Your task to perform on an android device: What's on my calendar today? Image 0: 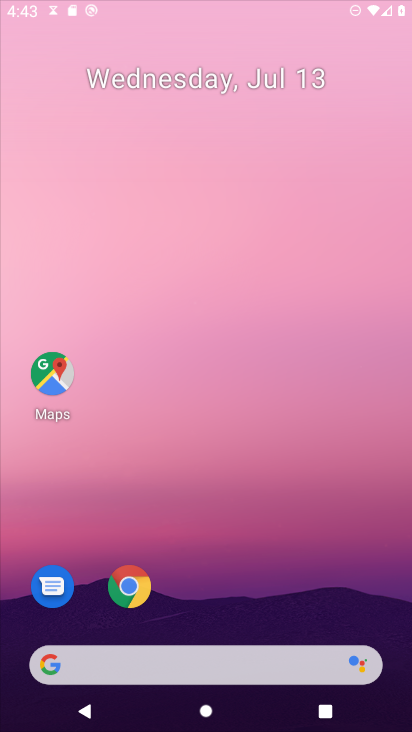
Step 0: drag from (254, 676) to (152, 68)
Your task to perform on an android device: What's on my calendar today? Image 1: 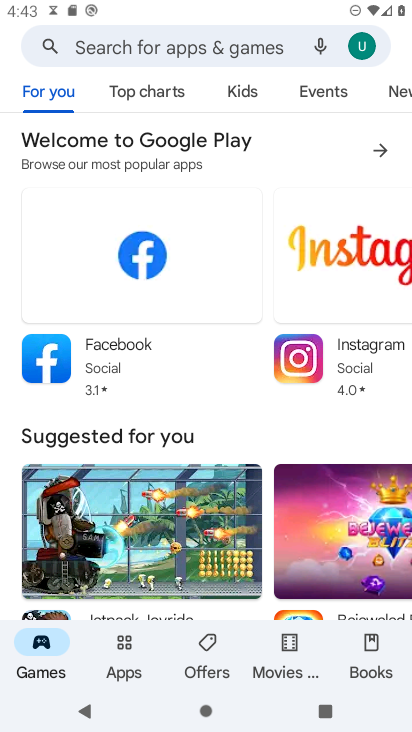
Step 1: press back button
Your task to perform on an android device: What's on my calendar today? Image 2: 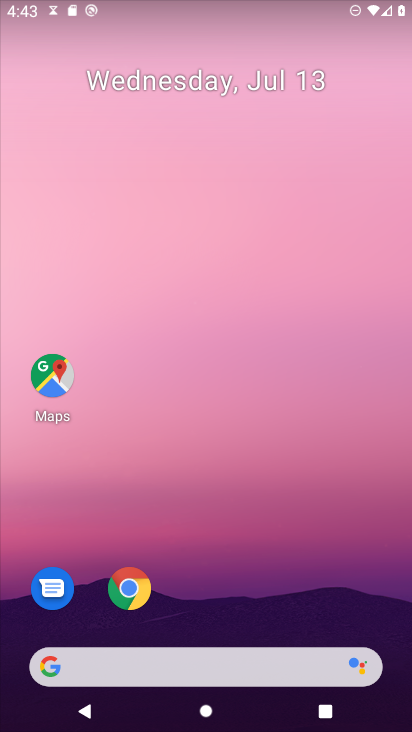
Step 2: drag from (275, 623) to (173, 114)
Your task to perform on an android device: What's on my calendar today? Image 3: 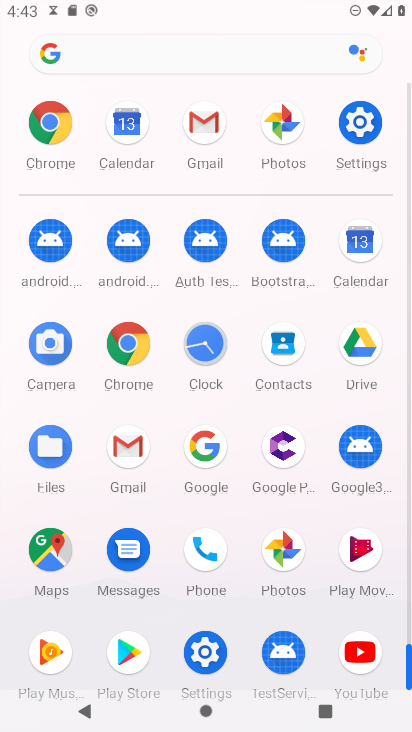
Step 3: click (362, 240)
Your task to perform on an android device: What's on my calendar today? Image 4: 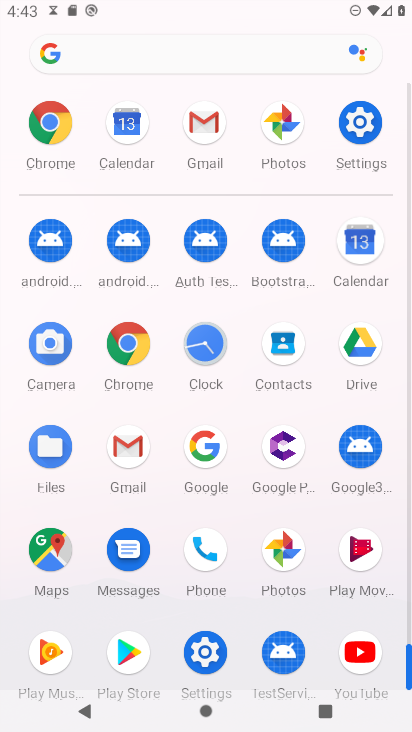
Step 4: click (362, 239)
Your task to perform on an android device: What's on my calendar today? Image 5: 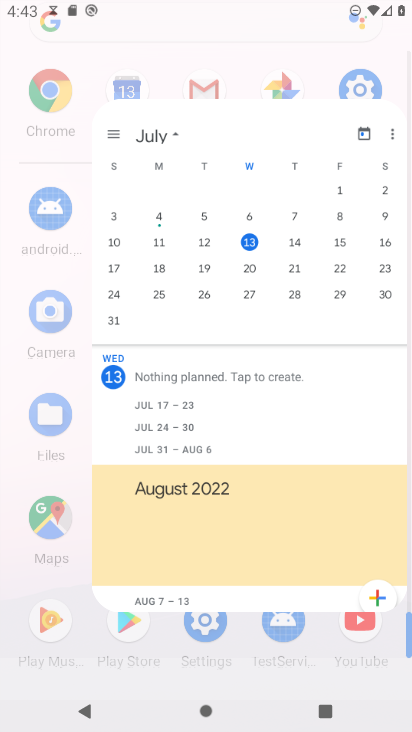
Step 5: click (362, 239)
Your task to perform on an android device: What's on my calendar today? Image 6: 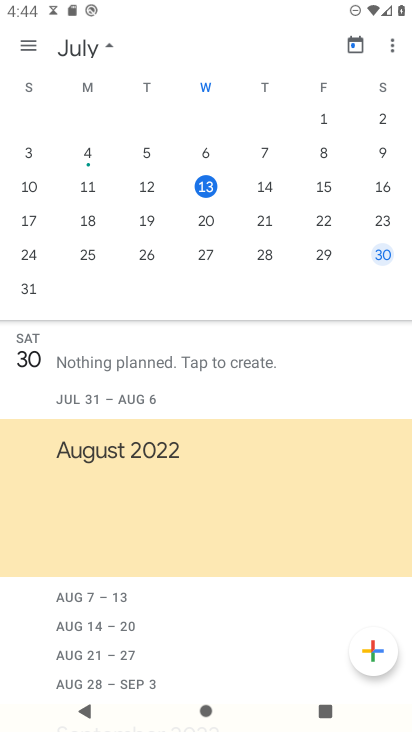
Step 6: click (206, 181)
Your task to perform on an android device: What's on my calendar today? Image 7: 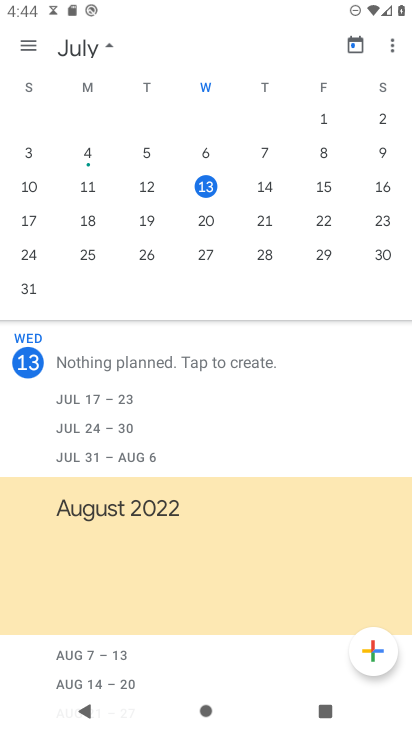
Step 7: task complete